Your task to perform on an android device: turn off improve location accuracy Image 0: 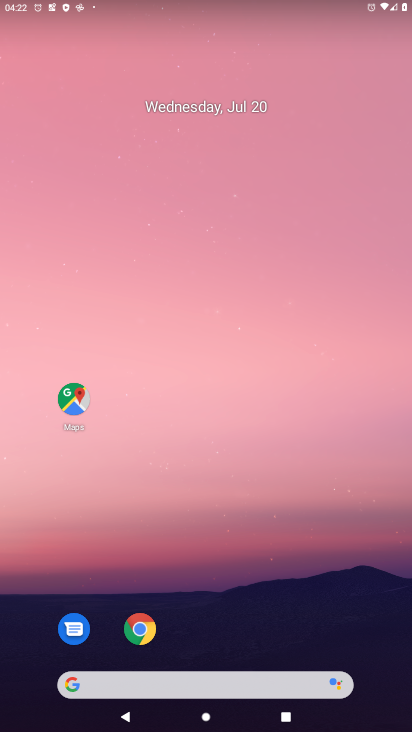
Step 0: drag from (379, 644) to (317, 21)
Your task to perform on an android device: turn off improve location accuracy Image 1: 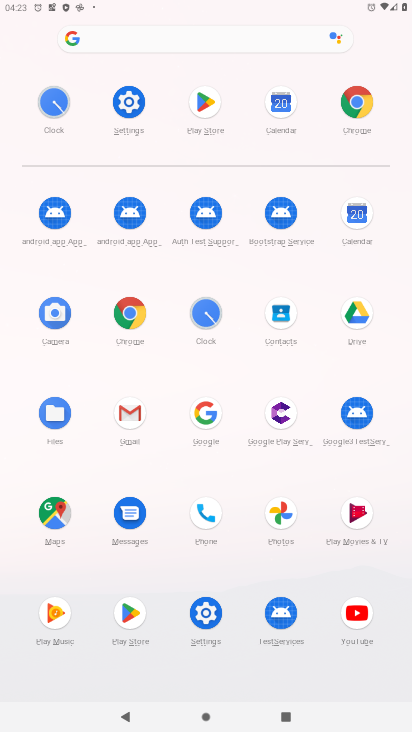
Step 1: click (205, 610)
Your task to perform on an android device: turn off improve location accuracy Image 2: 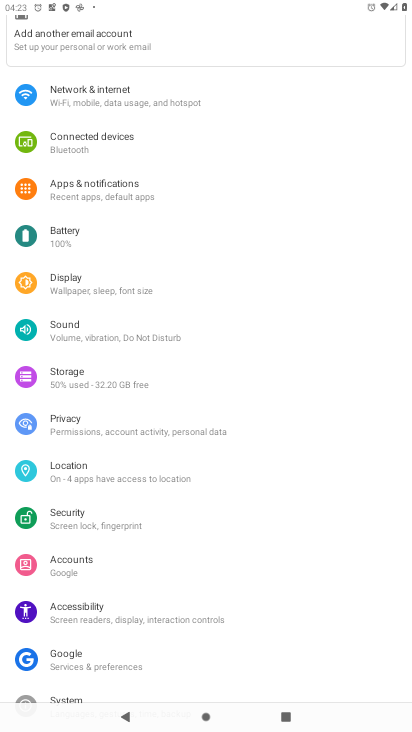
Step 2: click (70, 456)
Your task to perform on an android device: turn off improve location accuracy Image 3: 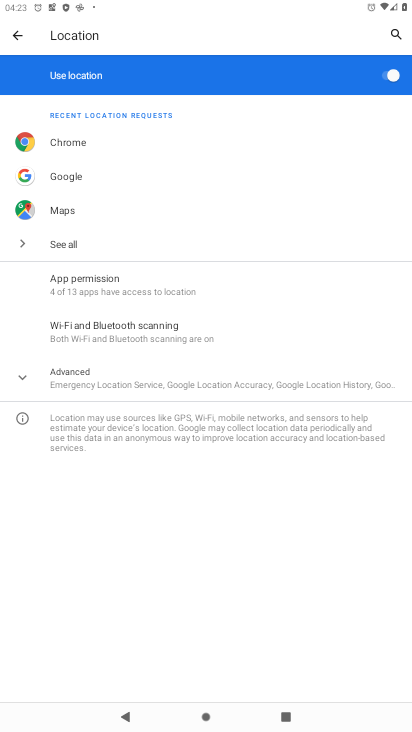
Step 3: click (22, 375)
Your task to perform on an android device: turn off improve location accuracy Image 4: 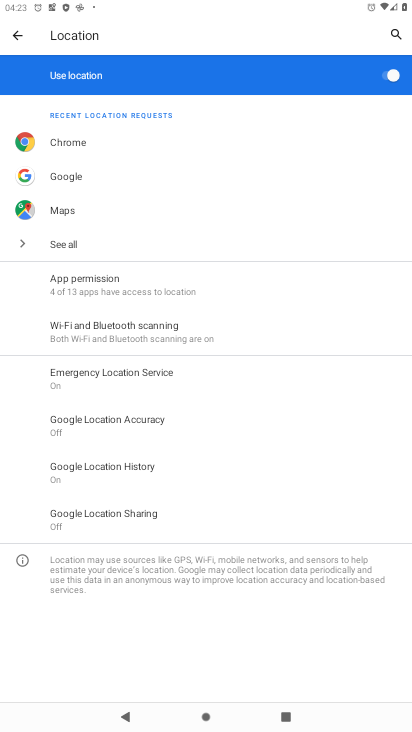
Step 4: click (121, 423)
Your task to perform on an android device: turn off improve location accuracy Image 5: 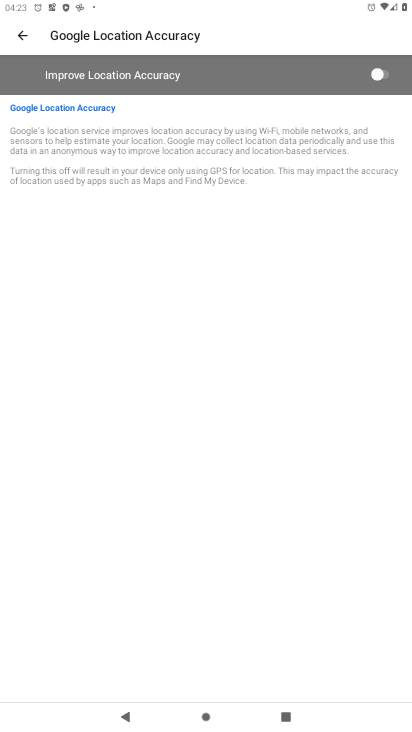
Step 5: task complete